Your task to perform on an android device: Open the map Image 0: 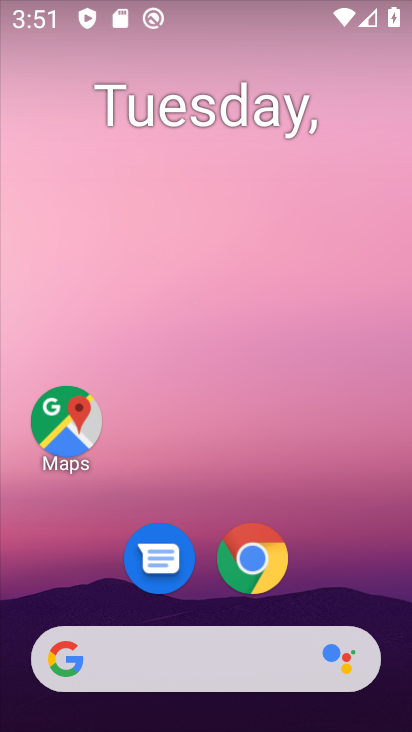
Step 0: click (67, 437)
Your task to perform on an android device: Open the map Image 1: 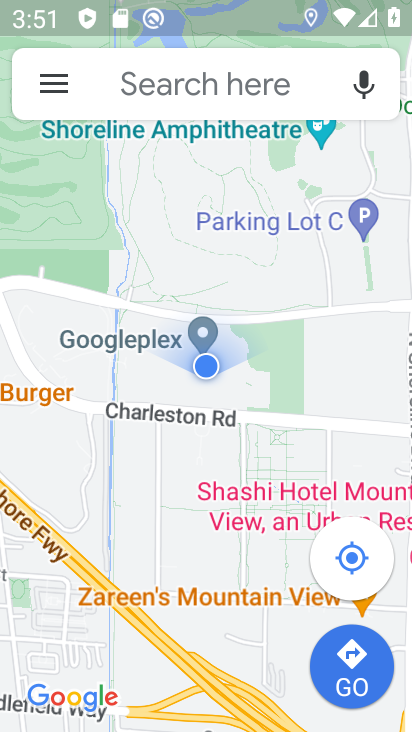
Step 1: task complete